Your task to perform on an android device: clear all cookies in the chrome app Image 0: 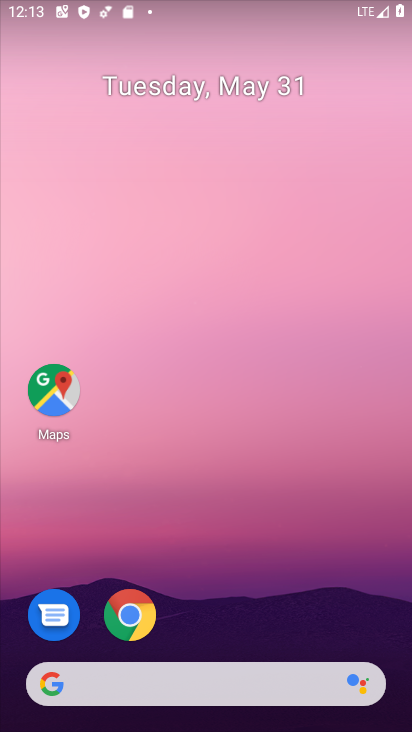
Step 0: click (138, 612)
Your task to perform on an android device: clear all cookies in the chrome app Image 1: 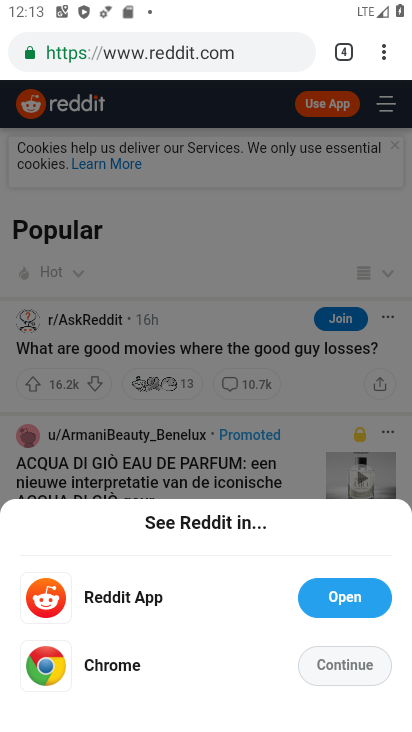
Step 1: click (391, 55)
Your task to perform on an android device: clear all cookies in the chrome app Image 2: 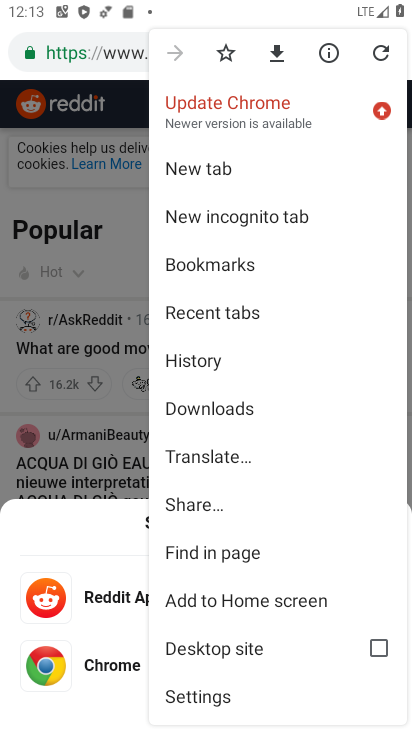
Step 2: click (211, 358)
Your task to perform on an android device: clear all cookies in the chrome app Image 3: 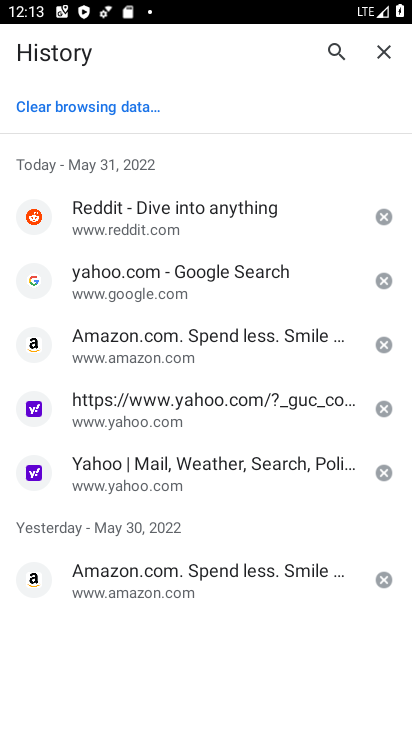
Step 3: click (101, 100)
Your task to perform on an android device: clear all cookies in the chrome app Image 4: 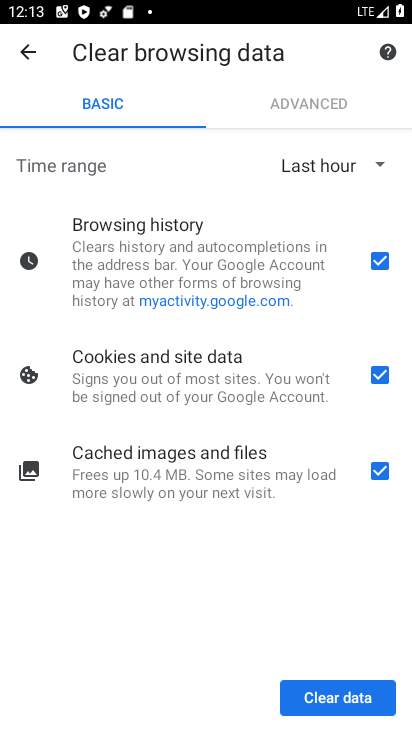
Step 4: click (363, 474)
Your task to perform on an android device: clear all cookies in the chrome app Image 5: 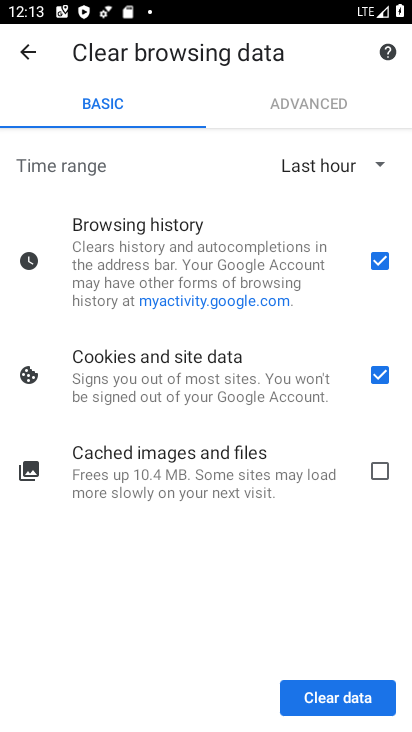
Step 5: click (376, 259)
Your task to perform on an android device: clear all cookies in the chrome app Image 6: 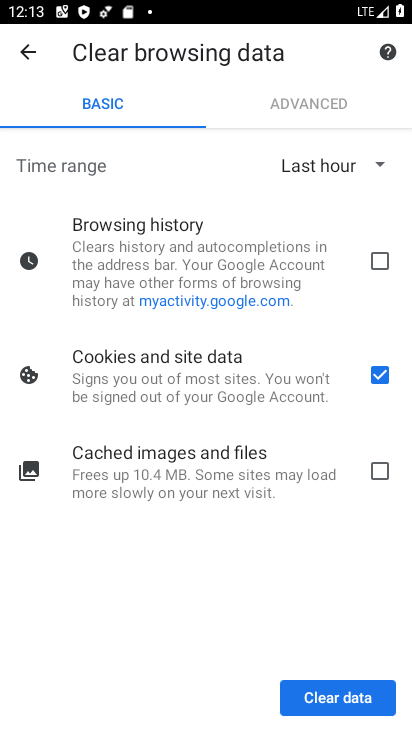
Step 6: click (349, 701)
Your task to perform on an android device: clear all cookies in the chrome app Image 7: 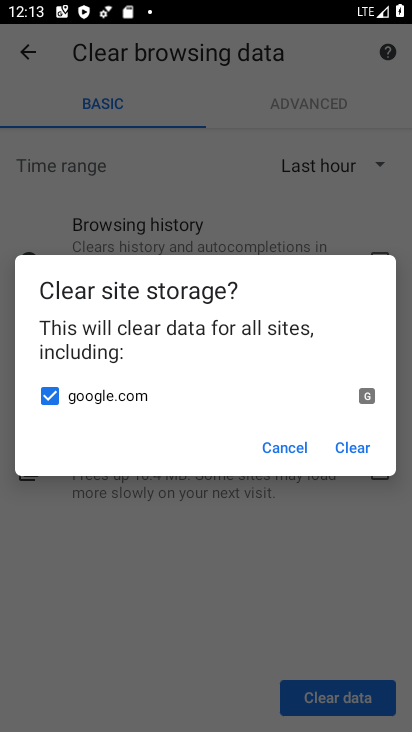
Step 7: click (342, 437)
Your task to perform on an android device: clear all cookies in the chrome app Image 8: 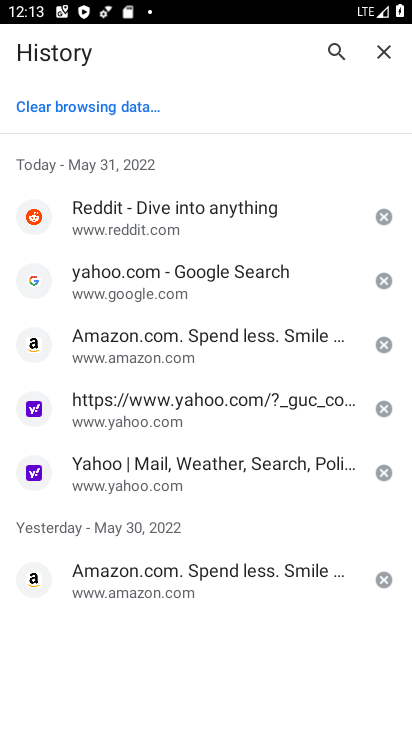
Step 8: task complete